Your task to perform on an android device: empty trash in google photos Image 0: 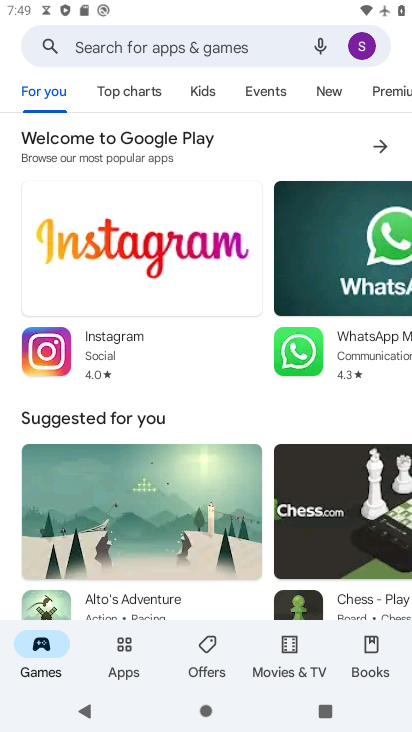
Step 0: press home button
Your task to perform on an android device: empty trash in google photos Image 1: 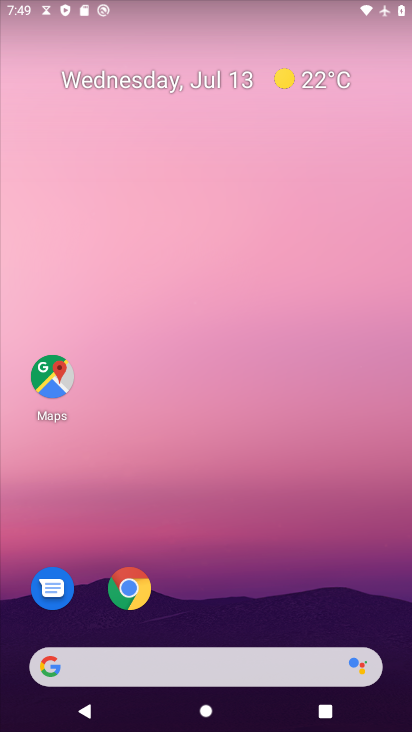
Step 1: drag from (283, 549) to (301, 154)
Your task to perform on an android device: empty trash in google photos Image 2: 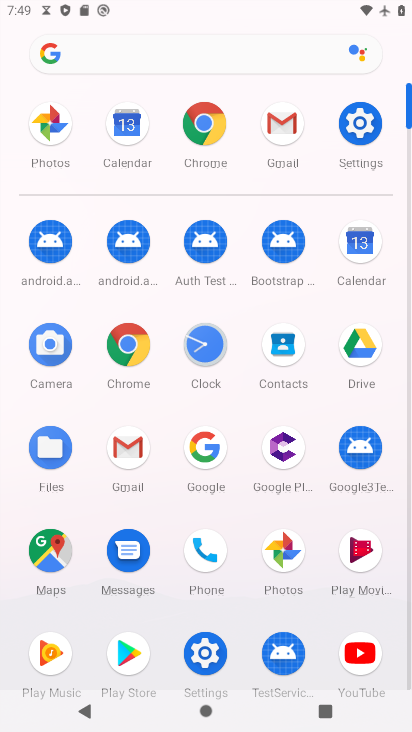
Step 2: click (291, 548)
Your task to perform on an android device: empty trash in google photos Image 3: 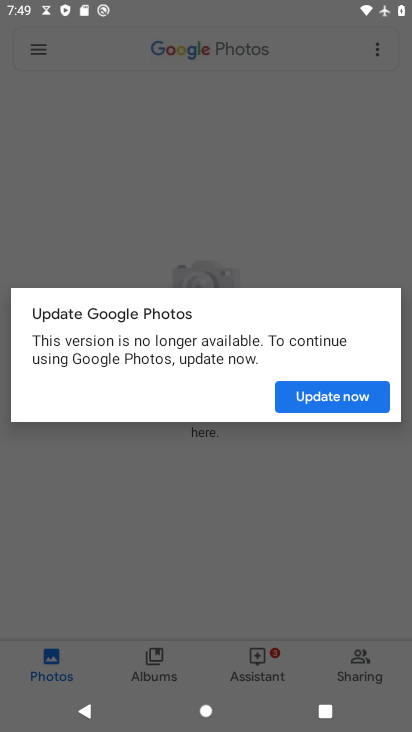
Step 3: click (309, 385)
Your task to perform on an android device: empty trash in google photos Image 4: 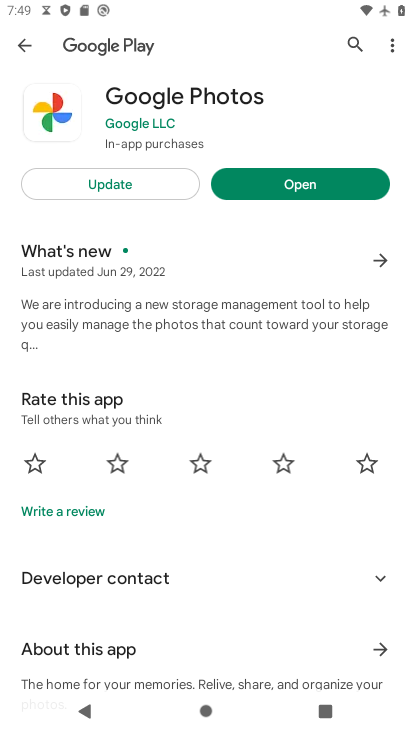
Step 4: press back button
Your task to perform on an android device: empty trash in google photos Image 5: 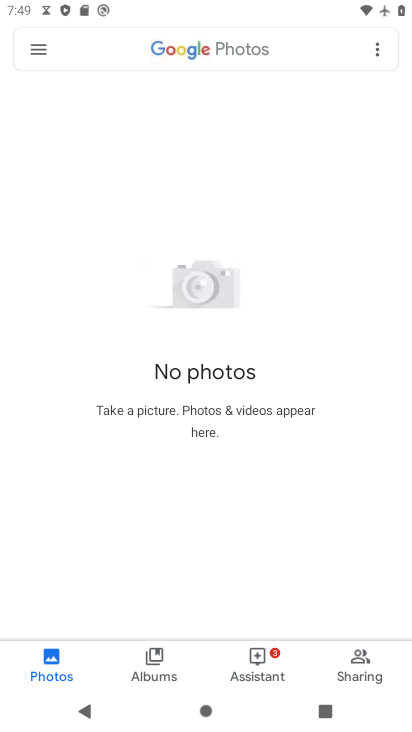
Step 5: click (39, 52)
Your task to perform on an android device: empty trash in google photos Image 6: 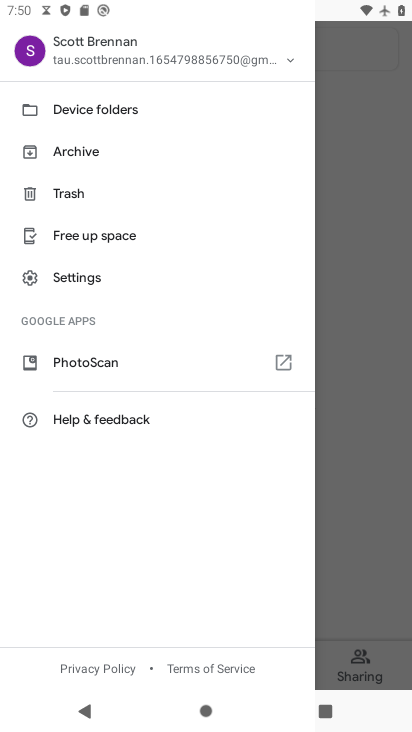
Step 6: click (96, 183)
Your task to perform on an android device: empty trash in google photos Image 7: 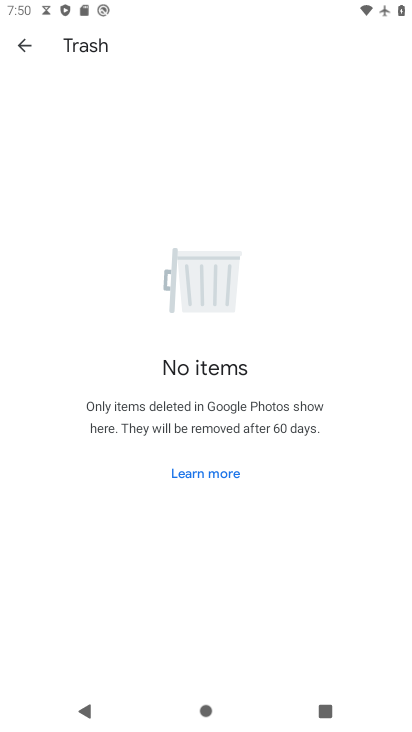
Step 7: task complete